Your task to perform on an android device: turn on sleep mode Image 0: 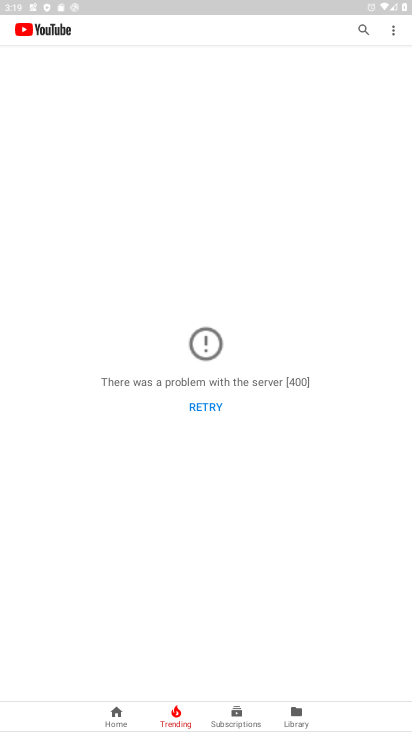
Step 0: press home button
Your task to perform on an android device: turn on sleep mode Image 1: 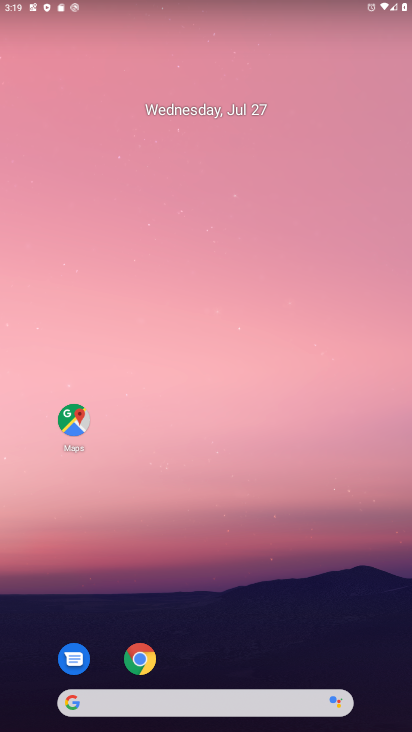
Step 1: drag from (248, 649) to (227, 135)
Your task to perform on an android device: turn on sleep mode Image 2: 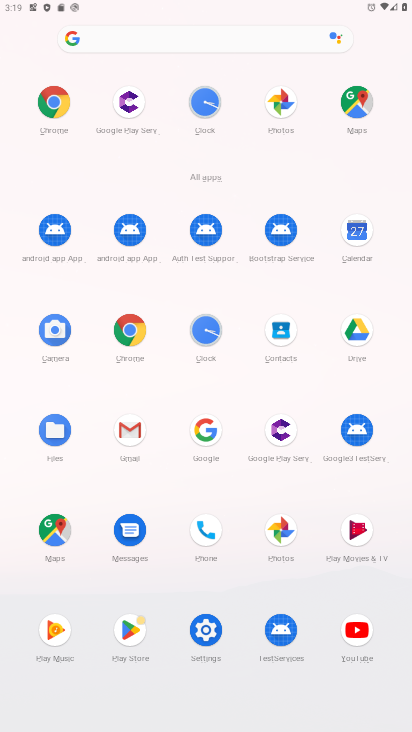
Step 2: click (209, 639)
Your task to perform on an android device: turn on sleep mode Image 3: 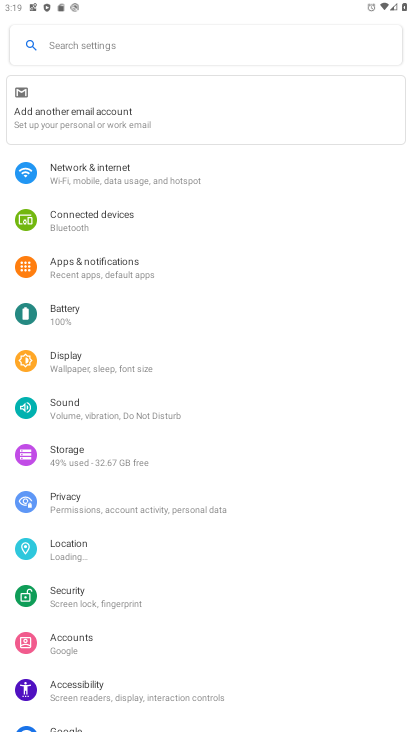
Step 3: click (129, 370)
Your task to perform on an android device: turn on sleep mode Image 4: 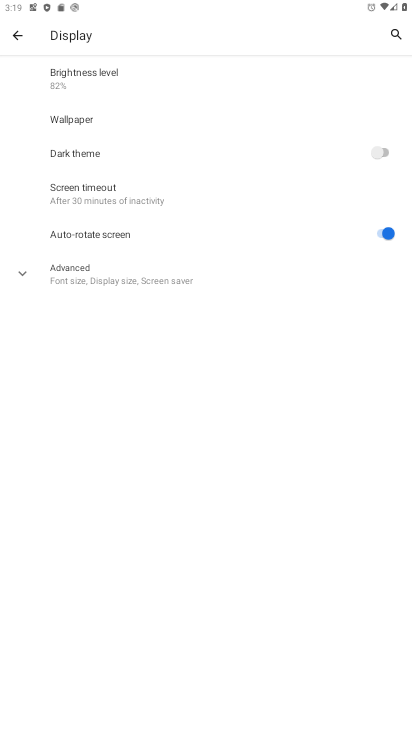
Step 4: click (160, 278)
Your task to perform on an android device: turn on sleep mode Image 5: 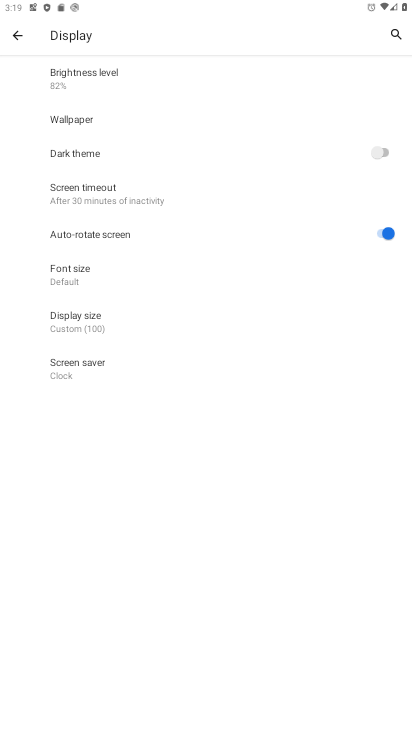
Step 5: task complete